Your task to perform on an android device: turn on javascript in the chrome app Image 0: 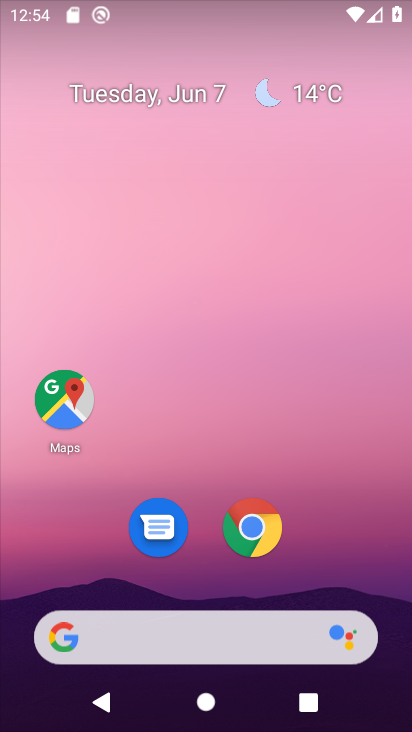
Step 0: click (247, 516)
Your task to perform on an android device: turn on javascript in the chrome app Image 1: 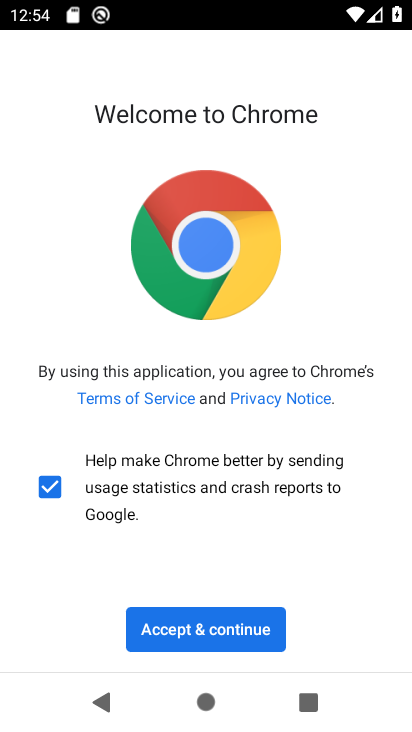
Step 1: click (204, 645)
Your task to perform on an android device: turn on javascript in the chrome app Image 2: 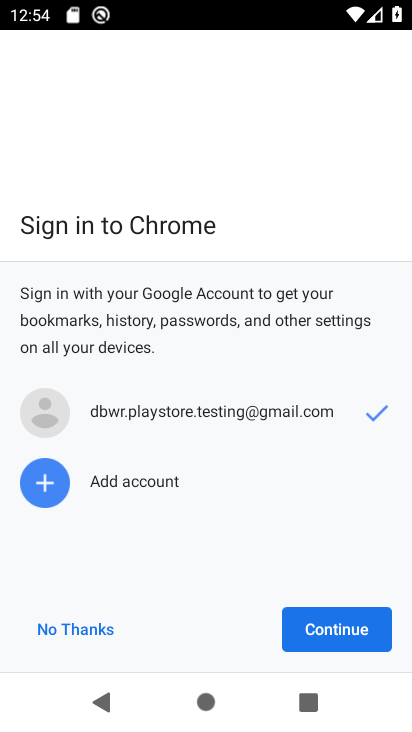
Step 2: click (360, 635)
Your task to perform on an android device: turn on javascript in the chrome app Image 3: 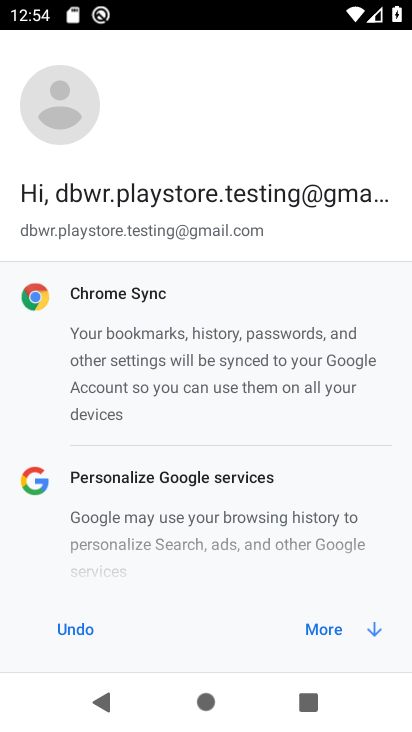
Step 3: click (331, 635)
Your task to perform on an android device: turn on javascript in the chrome app Image 4: 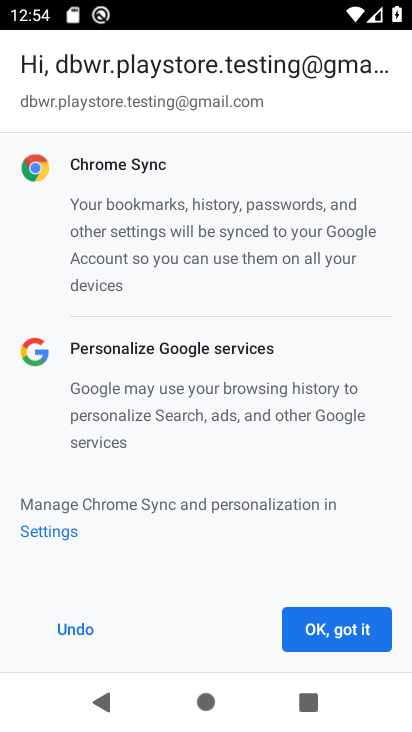
Step 4: click (331, 635)
Your task to perform on an android device: turn on javascript in the chrome app Image 5: 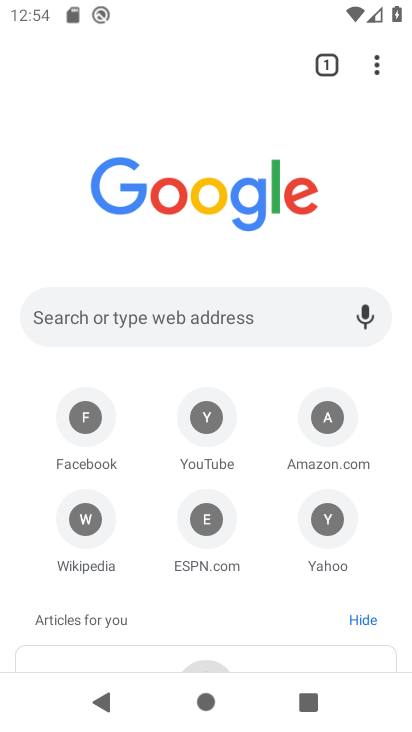
Step 5: click (376, 67)
Your task to perform on an android device: turn on javascript in the chrome app Image 6: 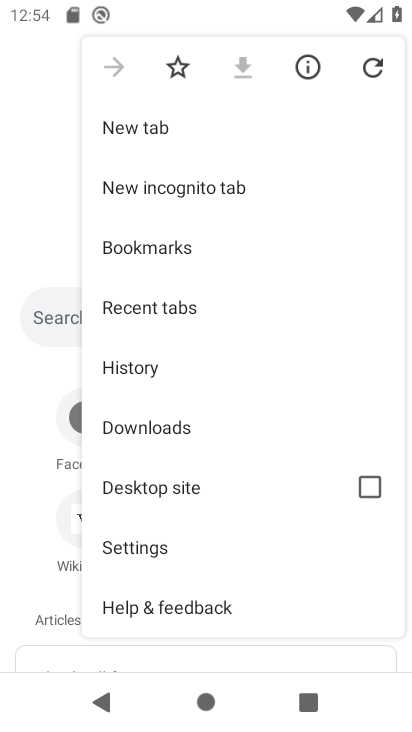
Step 6: click (193, 549)
Your task to perform on an android device: turn on javascript in the chrome app Image 7: 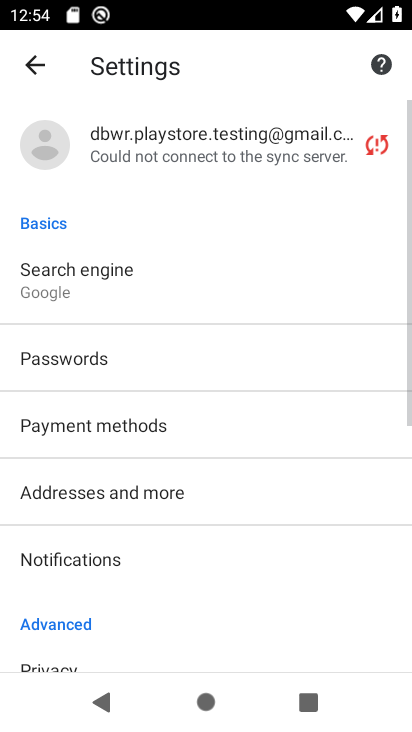
Step 7: drag from (89, 589) to (118, 110)
Your task to perform on an android device: turn on javascript in the chrome app Image 8: 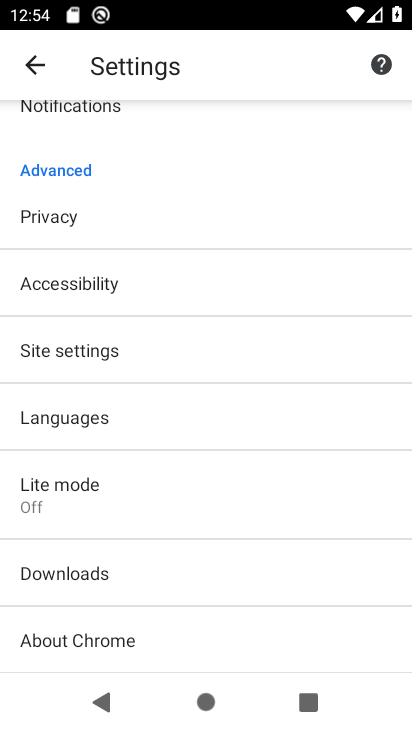
Step 8: click (95, 330)
Your task to perform on an android device: turn on javascript in the chrome app Image 9: 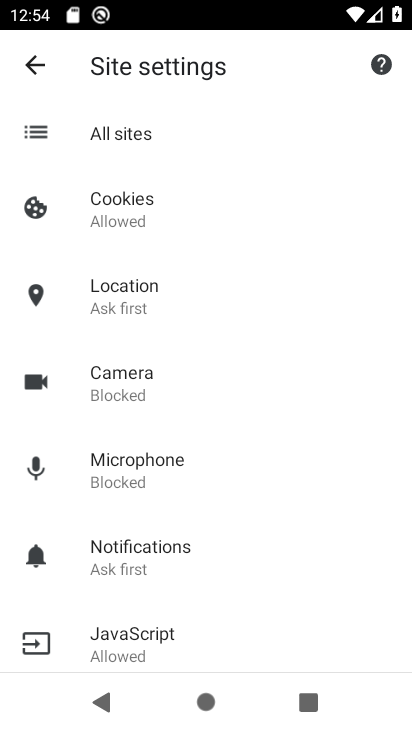
Step 9: click (111, 626)
Your task to perform on an android device: turn on javascript in the chrome app Image 10: 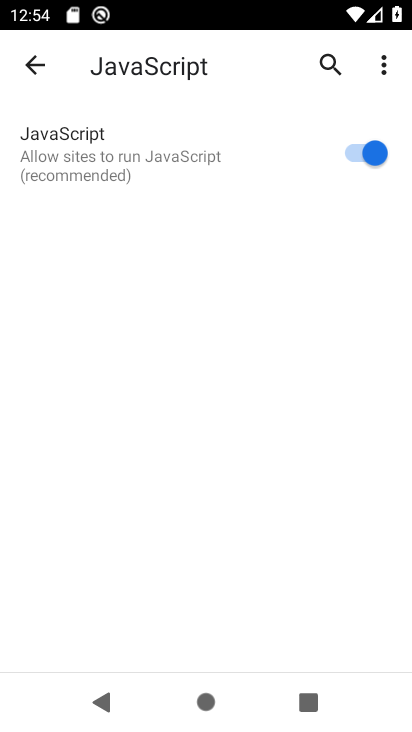
Step 10: task complete